Your task to perform on an android device: delete a single message in the gmail app Image 0: 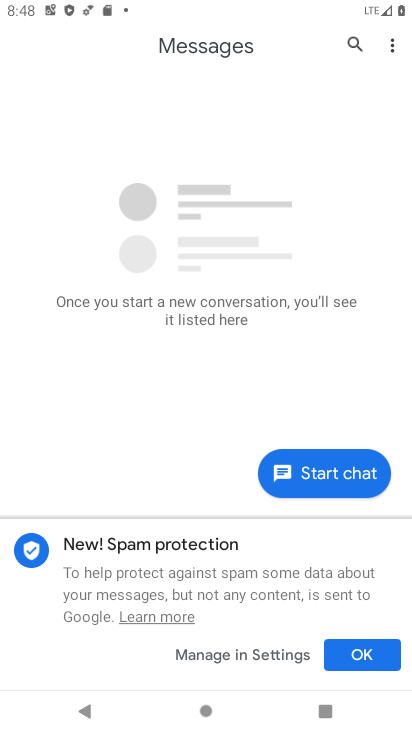
Step 0: press home button
Your task to perform on an android device: delete a single message in the gmail app Image 1: 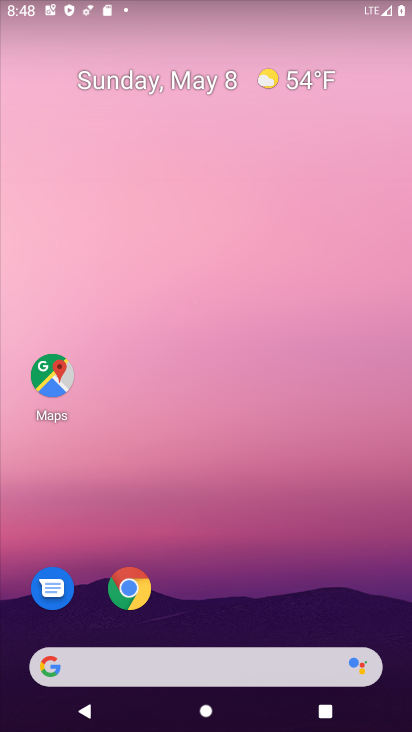
Step 1: drag from (16, 550) to (253, 181)
Your task to perform on an android device: delete a single message in the gmail app Image 2: 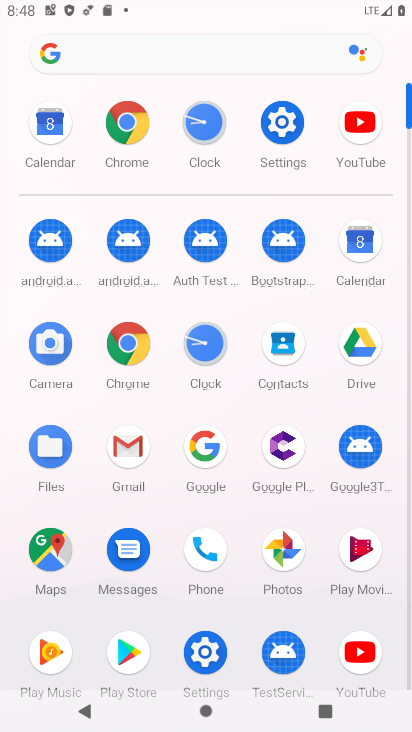
Step 2: click (128, 438)
Your task to perform on an android device: delete a single message in the gmail app Image 3: 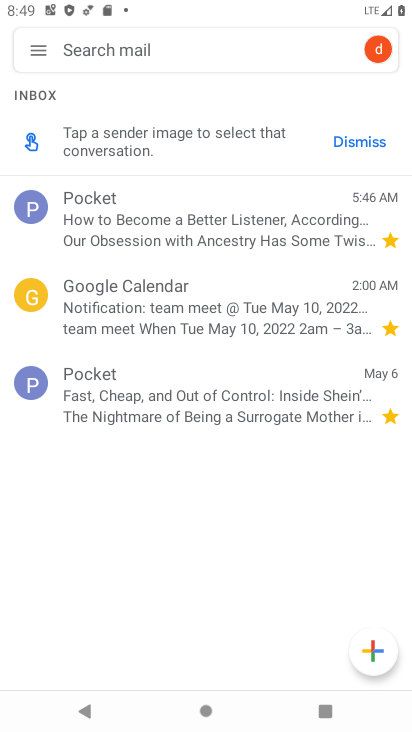
Step 3: press back button
Your task to perform on an android device: delete a single message in the gmail app Image 4: 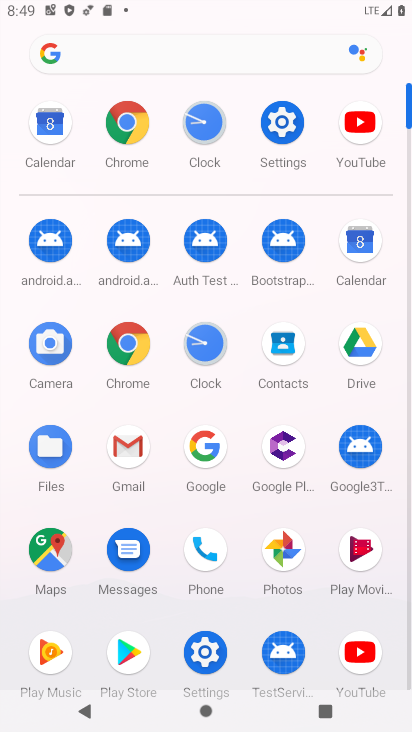
Step 4: click (136, 442)
Your task to perform on an android device: delete a single message in the gmail app Image 5: 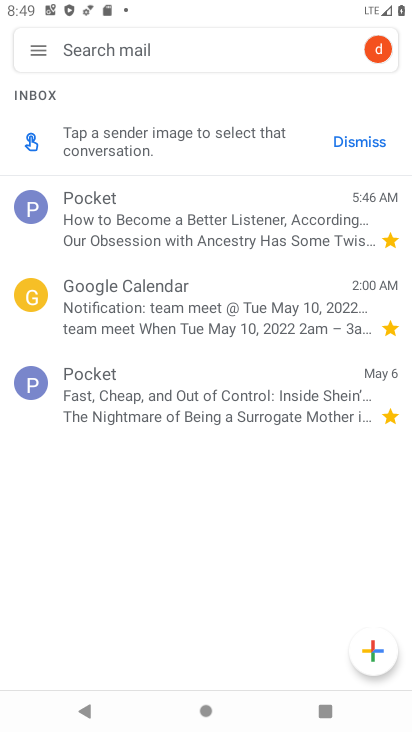
Step 5: click (222, 413)
Your task to perform on an android device: delete a single message in the gmail app Image 6: 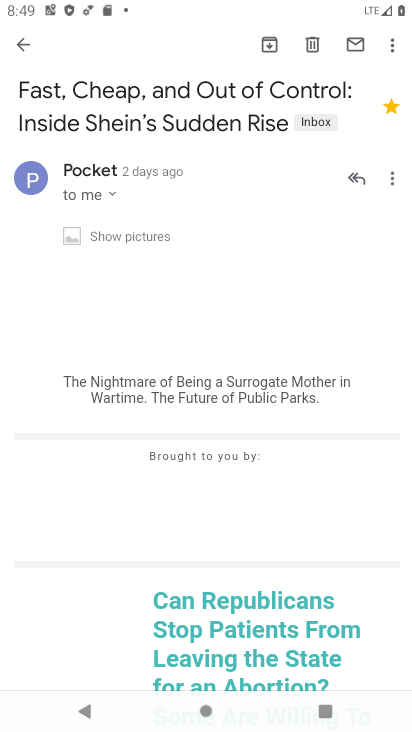
Step 6: click (306, 45)
Your task to perform on an android device: delete a single message in the gmail app Image 7: 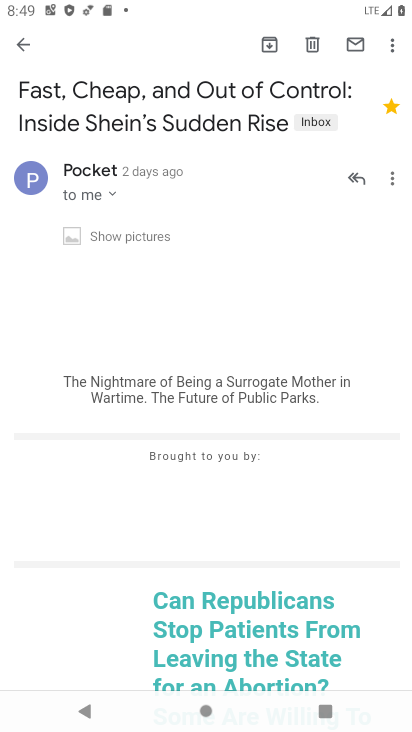
Step 7: click (309, 45)
Your task to perform on an android device: delete a single message in the gmail app Image 8: 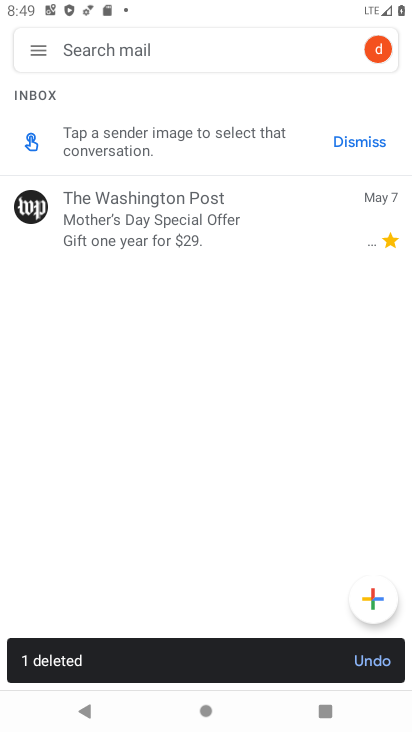
Step 8: task complete